Your task to perform on an android device: Open Google Maps Image 0: 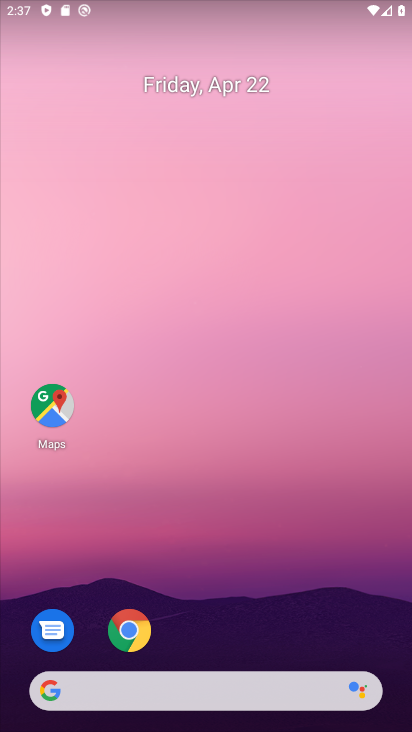
Step 0: drag from (211, 664) to (264, 75)
Your task to perform on an android device: Open Google Maps Image 1: 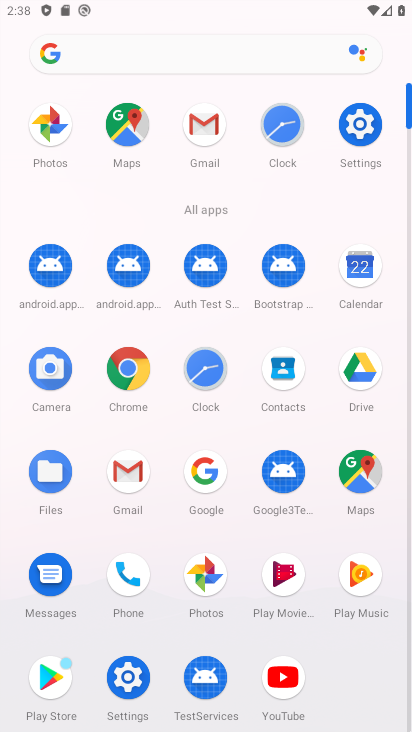
Step 1: click (352, 465)
Your task to perform on an android device: Open Google Maps Image 2: 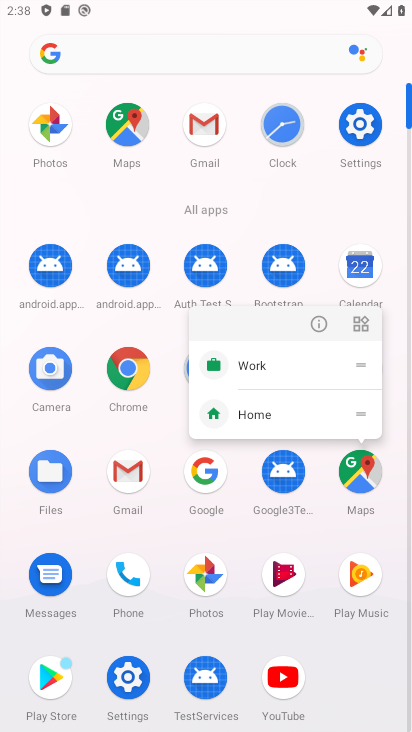
Step 2: click (354, 482)
Your task to perform on an android device: Open Google Maps Image 3: 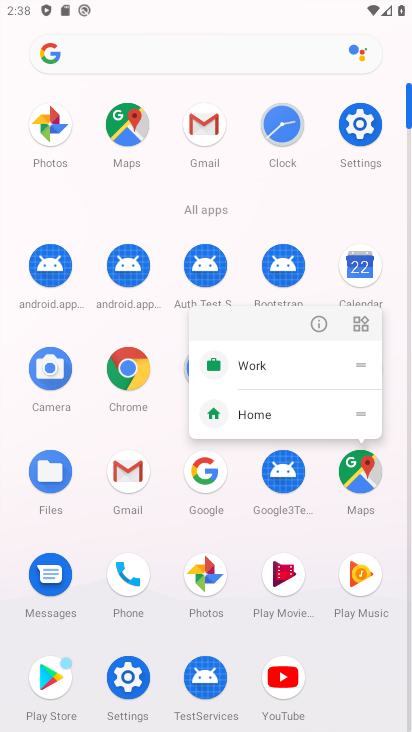
Step 3: click (354, 482)
Your task to perform on an android device: Open Google Maps Image 4: 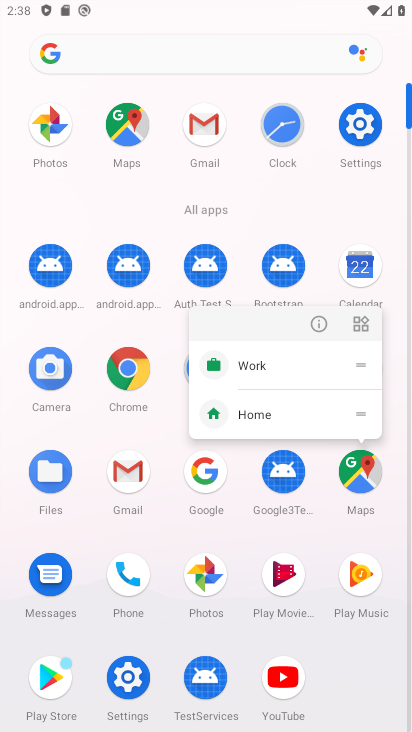
Step 4: click (354, 482)
Your task to perform on an android device: Open Google Maps Image 5: 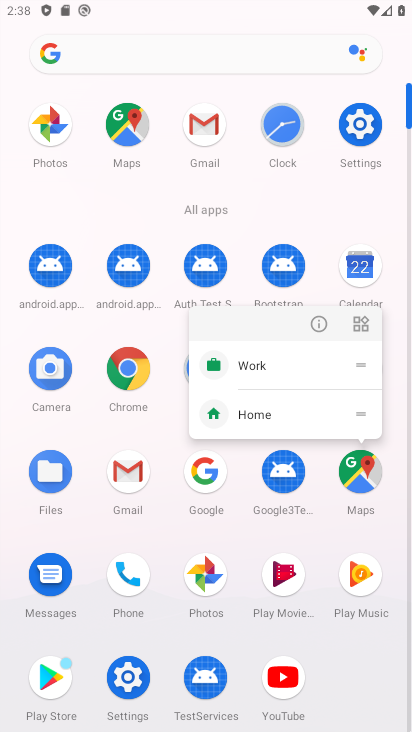
Step 5: click (354, 482)
Your task to perform on an android device: Open Google Maps Image 6: 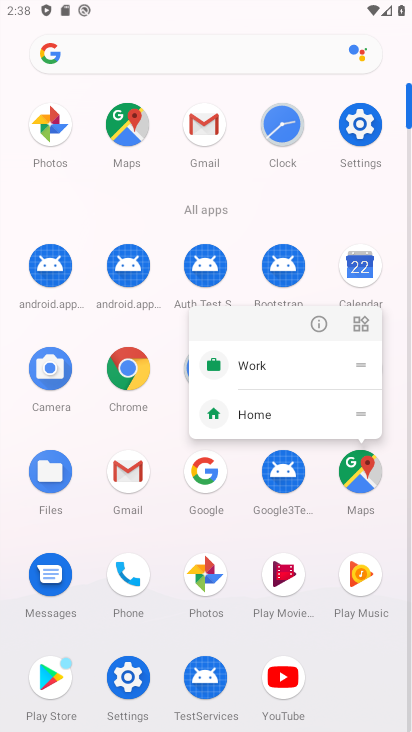
Step 6: click (365, 476)
Your task to perform on an android device: Open Google Maps Image 7: 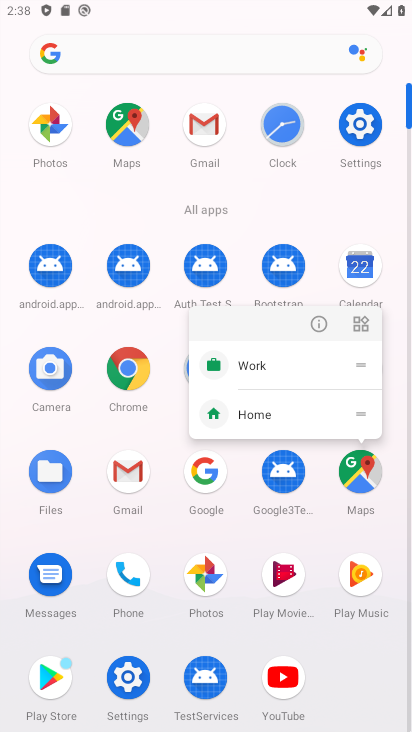
Step 7: click (365, 476)
Your task to perform on an android device: Open Google Maps Image 8: 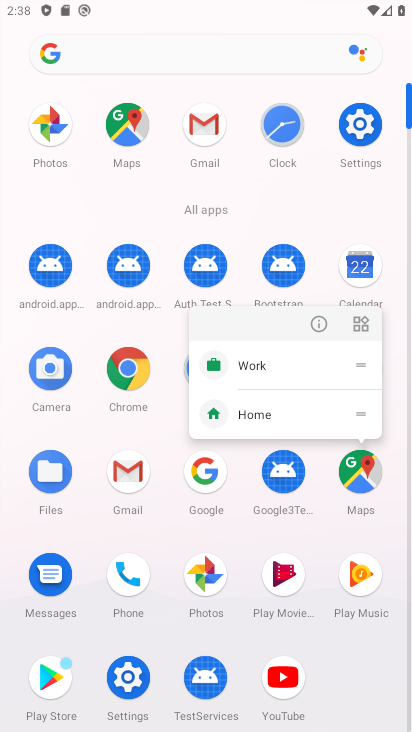
Step 8: click (365, 484)
Your task to perform on an android device: Open Google Maps Image 9: 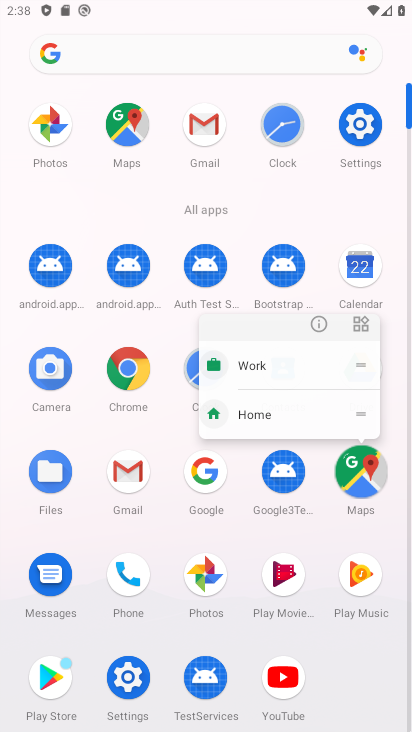
Step 9: click (365, 484)
Your task to perform on an android device: Open Google Maps Image 10: 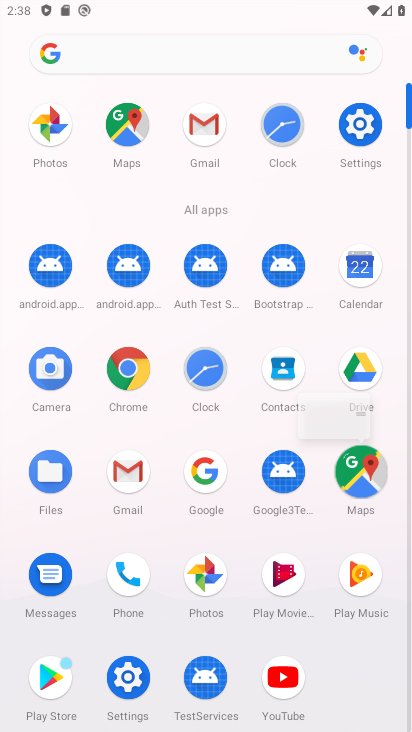
Step 10: click (365, 484)
Your task to perform on an android device: Open Google Maps Image 11: 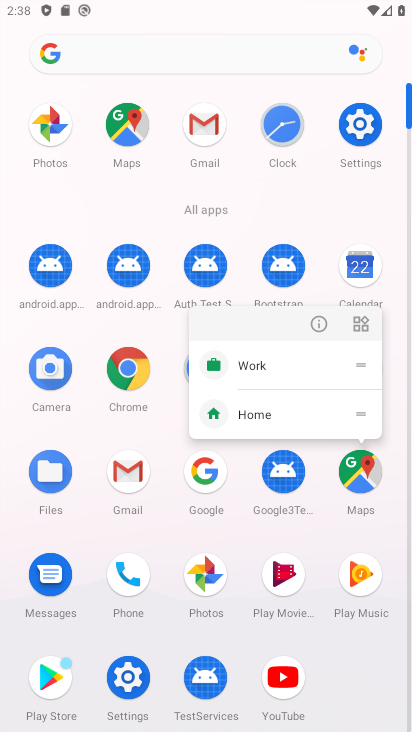
Step 11: click (365, 484)
Your task to perform on an android device: Open Google Maps Image 12: 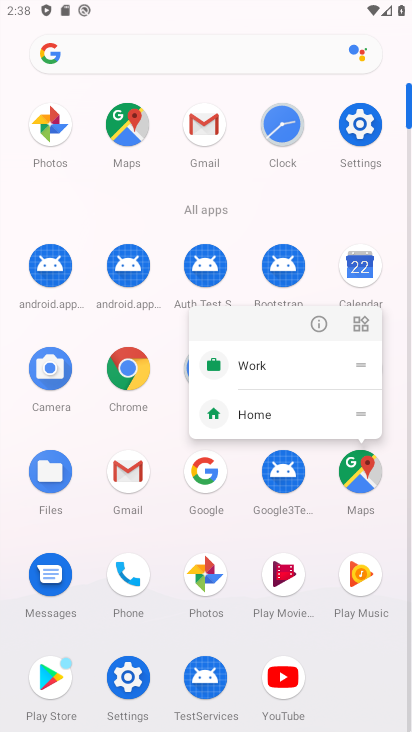
Step 12: click (365, 484)
Your task to perform on an android device: Open Google Maps Image 13: 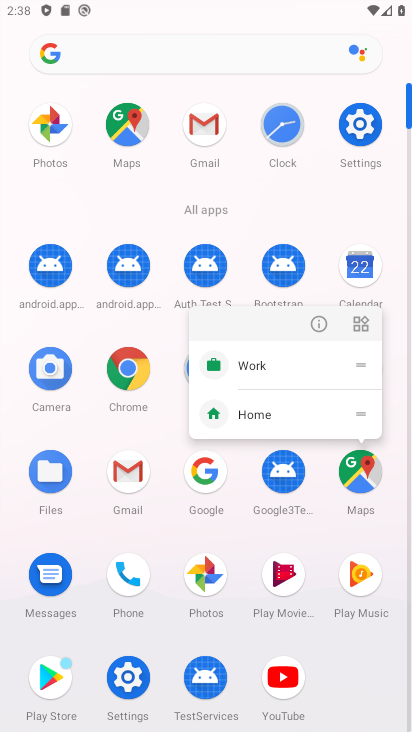
Step 13: click (365, 484)
Your task to perform on an android device: Open Google Maps Image 14: 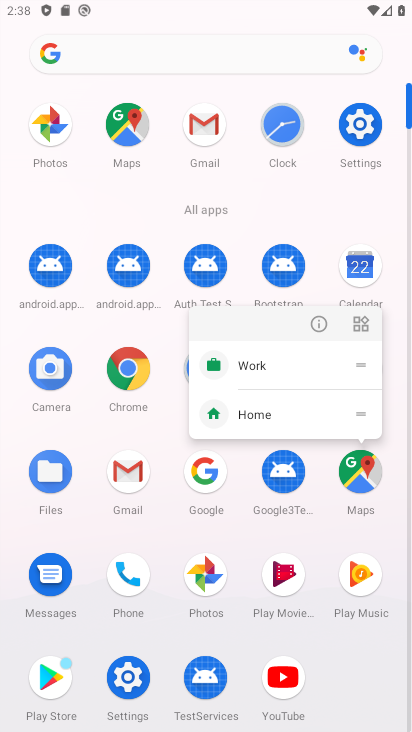
Step 14: click (365, 484)
Your task to perform on an android device: Open Google Maps Image 15: 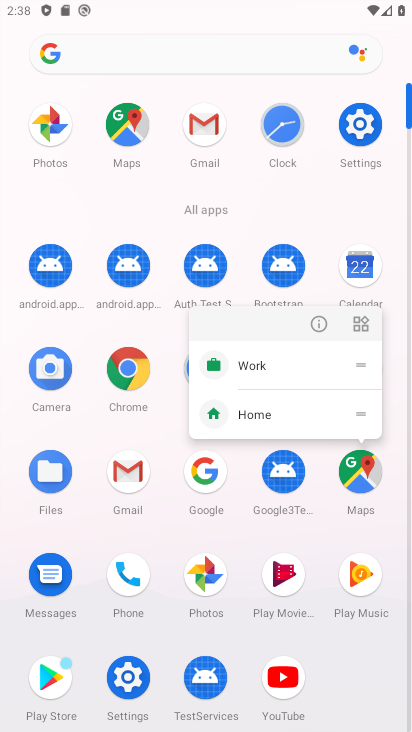
Step 15: click (365, 484)
Your task to perform on an android device: Open Google Maps Image 16: 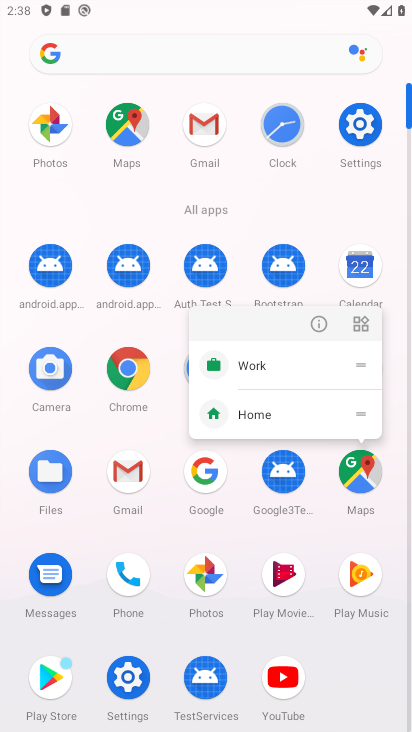
Step 16: click (359, 486)
Your task to perform on an android device: Open Google Maps Image 17: 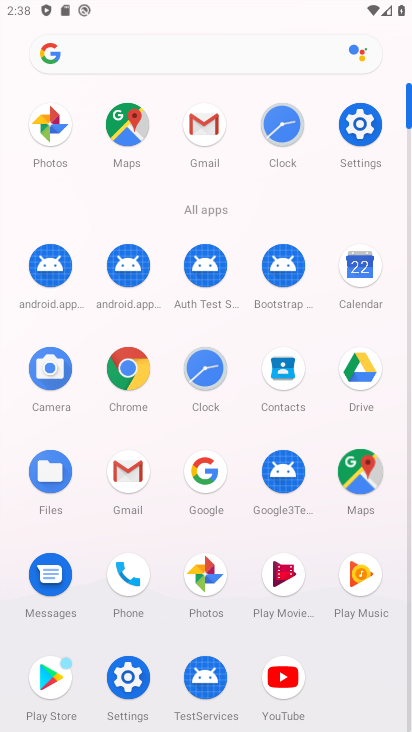
Step 17: click (359, 486)
Your task to perform on an android device: Open Google Maps Image 18: 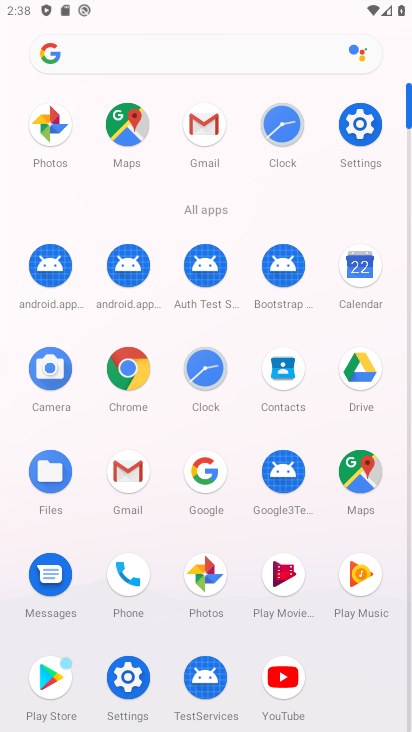
Step 18: click (359, 478)
Your task to perform on an android device: Open Google Maps Image 19: 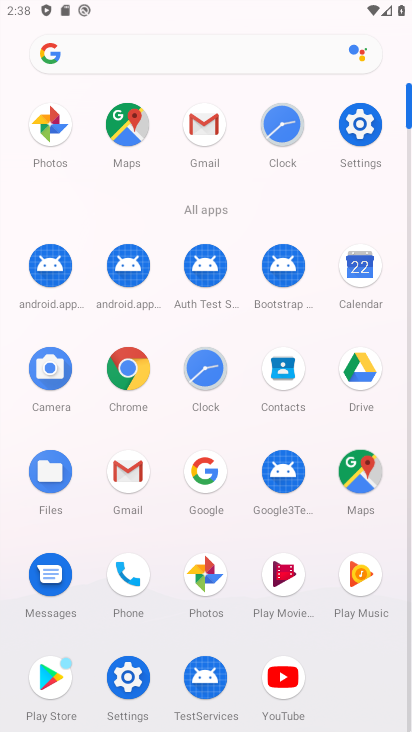
Step 19: click (359, 478)
Your task to perform on an android device: Open Google Maps Image 20: 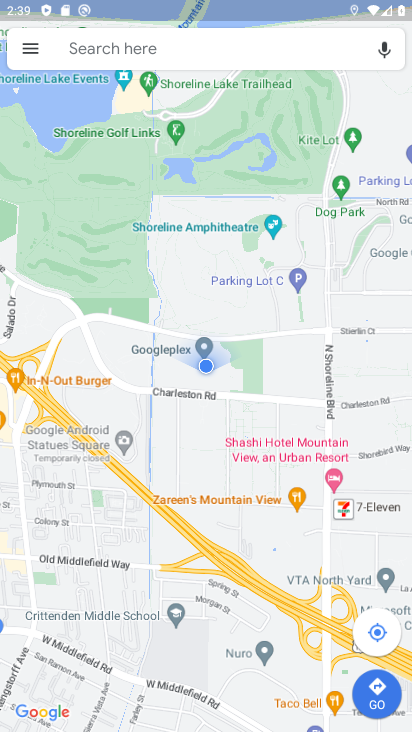
Step 20: task complete